Your task to perform on an android device: Go to location settings Image 0: 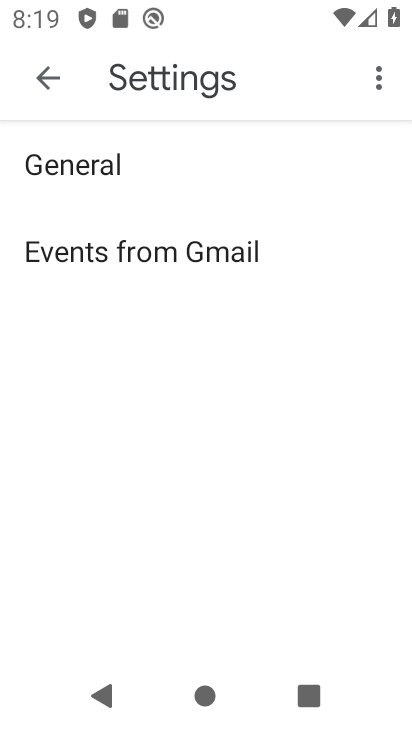
Step 0: press home button
Your task to perform on an android device: Go to location settings Image 1: 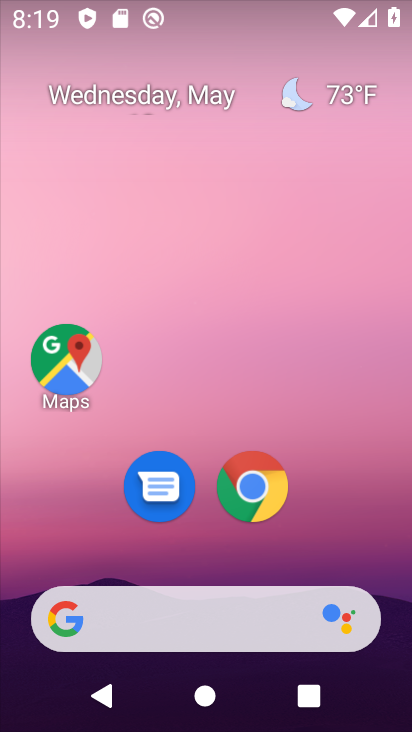
Step 1: drag from (400, 632) to (357, 243)
Your task to perform on an android device: Go to location settings Image 2: 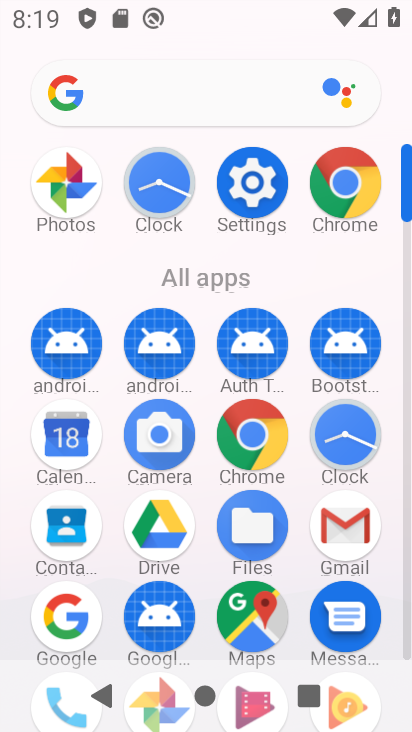
Step 2: click (406, 646)
Your task to perform on an android device: Go to location settings Image 3: 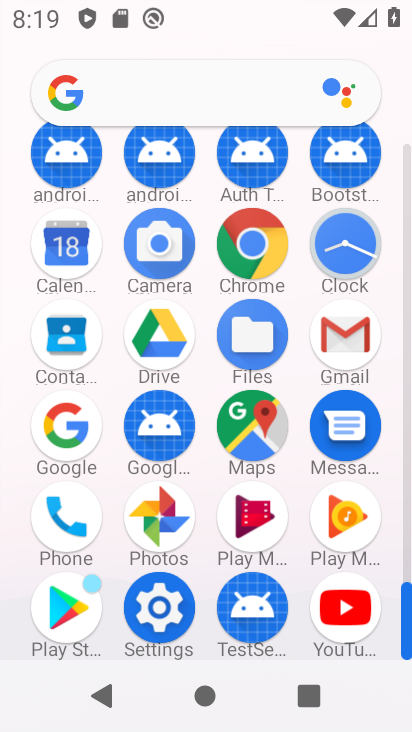
Step 3: click (163, 604)
Your task to perform on an android device: Go to location settings Image 4: 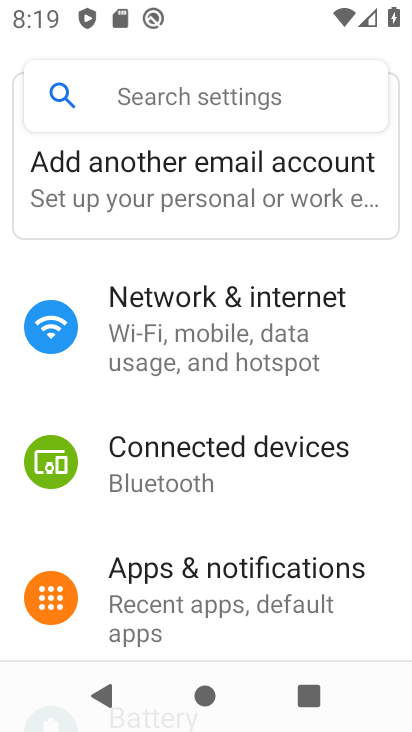
Step 4: drag from (291, 613) to (283, 243)
Your task to perform on an android device: Go to location settings Image 5: 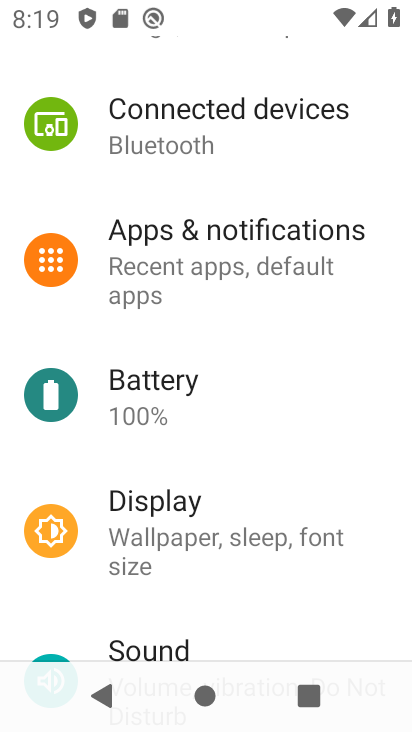
Step 5: drag from (350, 594) to (337, 252)
Your task to perform on an android device: Go to location settings Image 6: 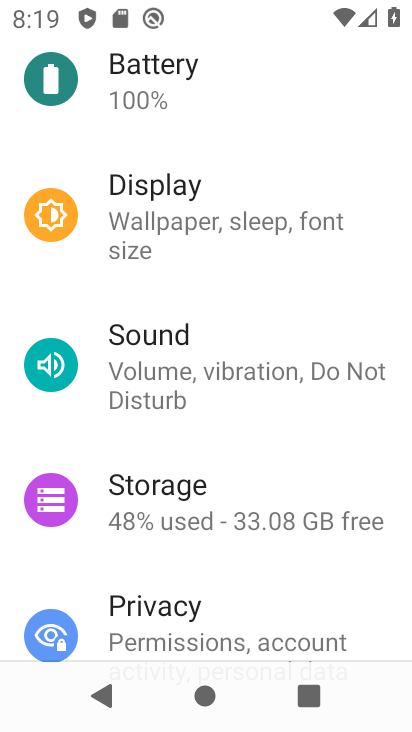
Step 6: drag from (338, 595) to (332, 240)
Your task to perform on an android device: Go to location settings Image 7: 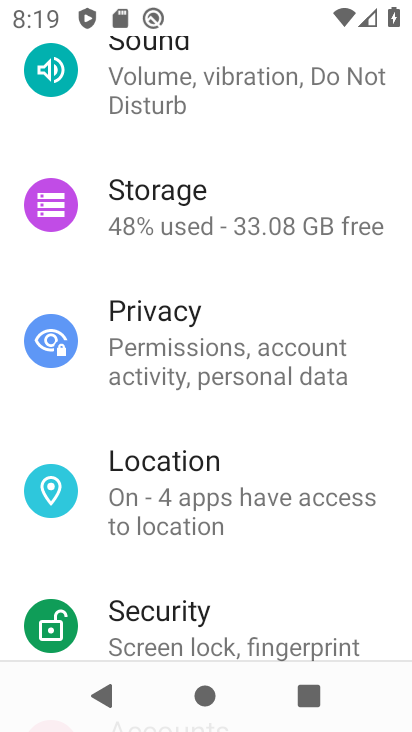
Step 7: click (175, 473)
Your task to perform on an android device: Go to location settings Image 8: 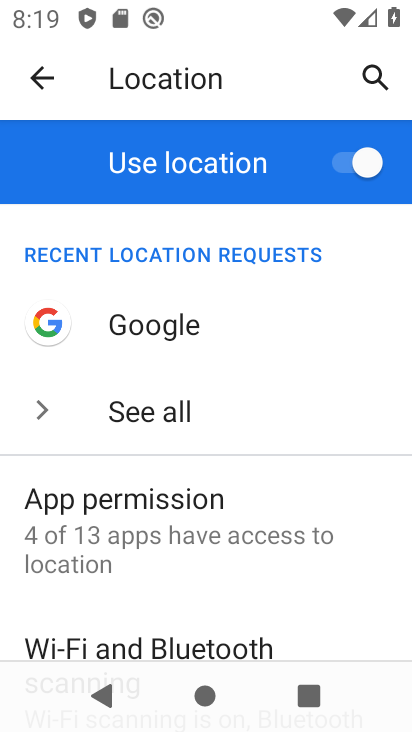
Step 8: drag from (284, 598) to (301, 416)
Your task to perform on an android device: Go to location settings Image 9: 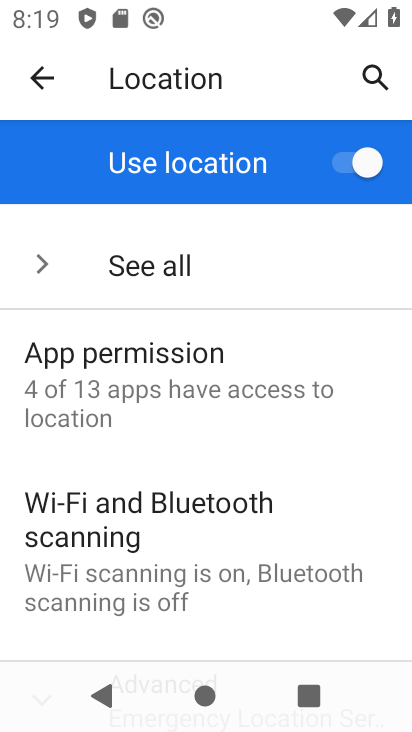
Step 9: drag from (293, 605) to (294, 326)
Your task to perform on an android device: Go to location settings Image 10: 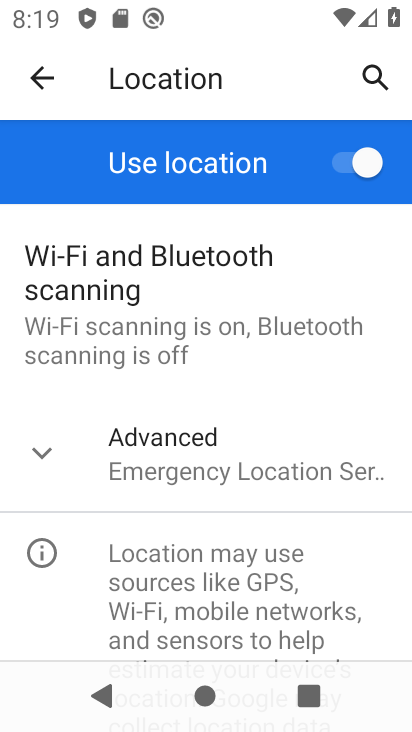
Step 10: click (38, 455)
Your task to perform on an android device: Go to location settings Image 11: 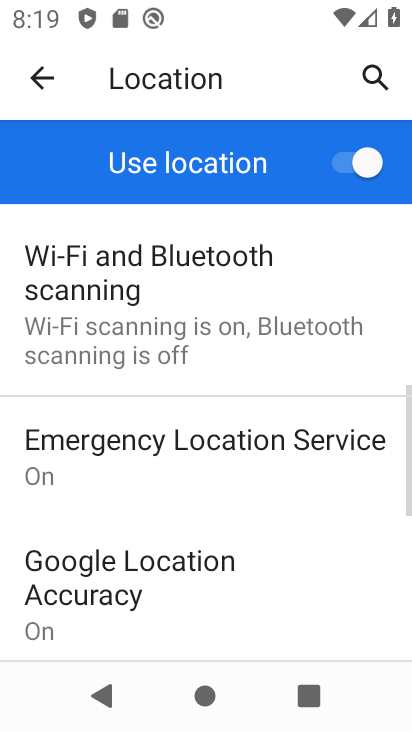
Step 11: task complete